Your task to perform on an android device: Open privacy settings Image 0: 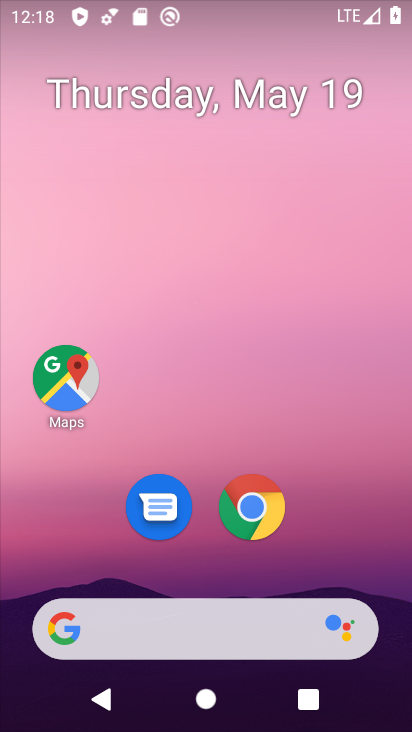
Step 0: drag from (212, 549) to (262, 129)
Your task to perform on an android device: Open privacy settings Image 1: 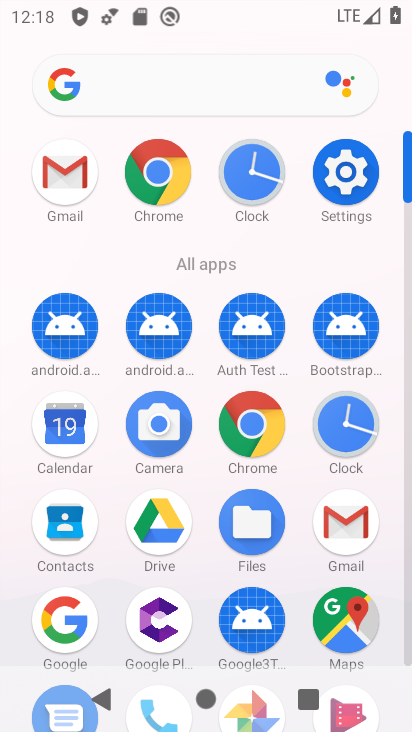
Step 1: click (342, 190)
Your task to perform on an android device: Open privacy settings Image 2: 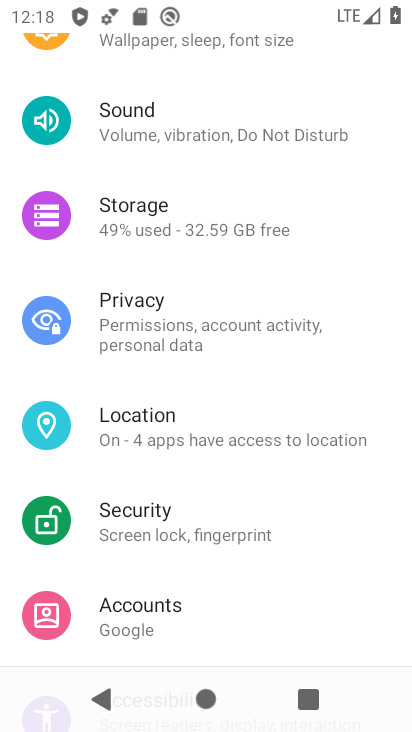
Step 2: click (201, 336)
Your task to perform on an android device: Open privacy settings Image 3: 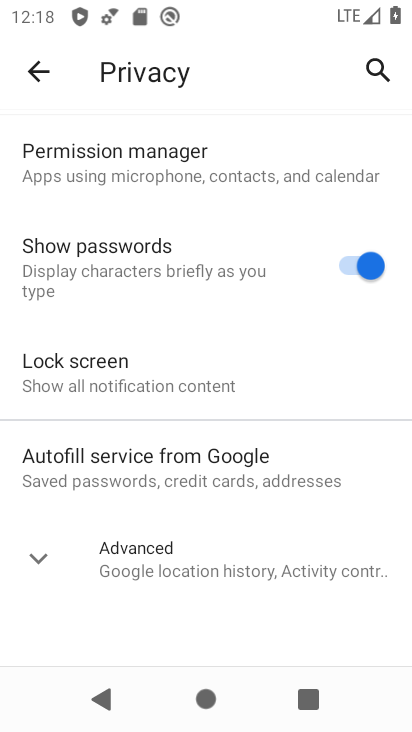
Step 3: task complete